Your task to perform on an android device: turn on translation in the chrome app Image 0: 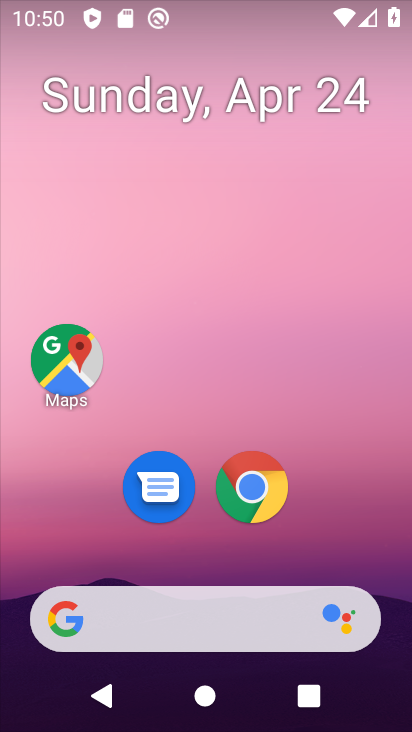
Step 0: click (251, 484)
Your task to perform on an android device: turn on translation in the chrome app Image 1: 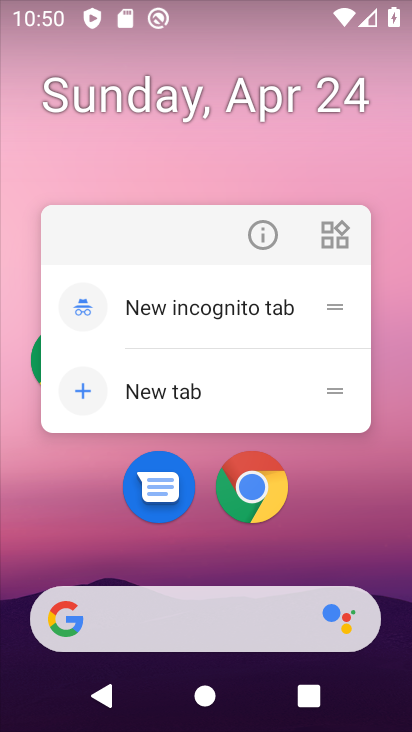
Step 1: click (259, 231)
Your task to perform on an android device: turn on translation in the chrome app Image 2: 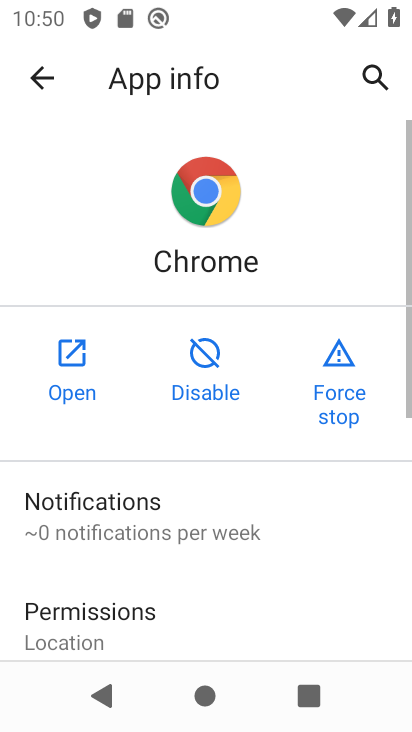
Step 2: click (64, 356)
Your task to perform on an android device: turn on translation in the chrome app Image 3: 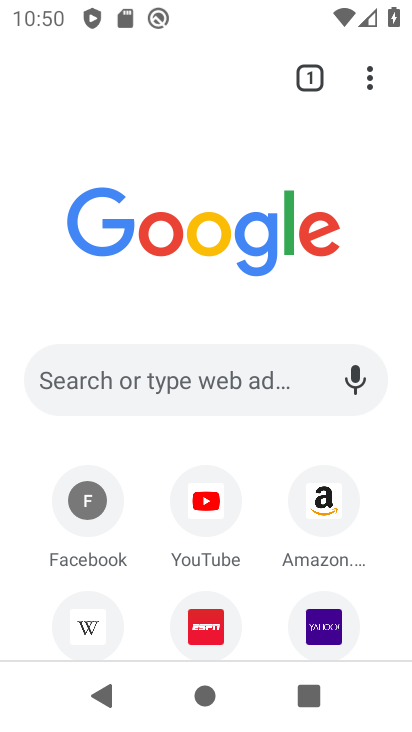
Step 3: click (362, 79)
Your task to perform on an android device: turn on translation in the chrome app Image 4: 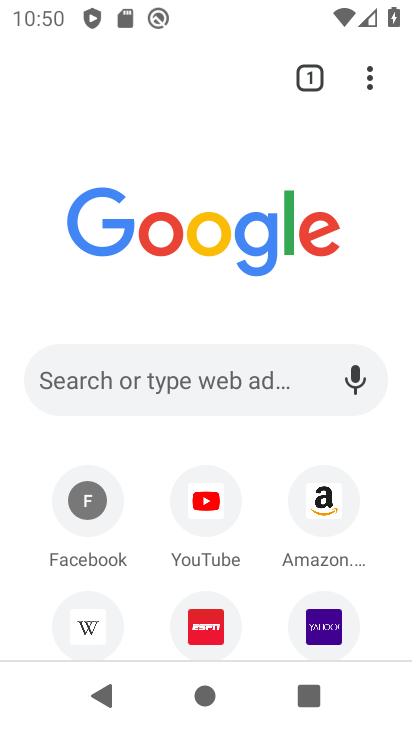
Step 4: click (368, 77)
Your task to perform on an android device: turn on translation in the chrome app Image 5: 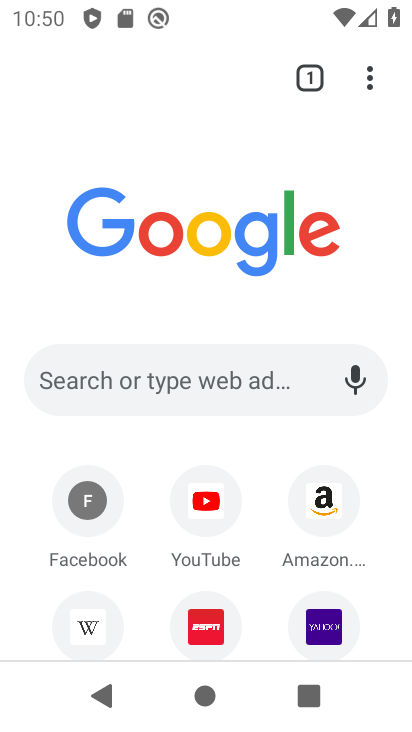
Step 5: click (368, 77)
Your task to perform on an android device: turn on translation in the chrome app Image 6: 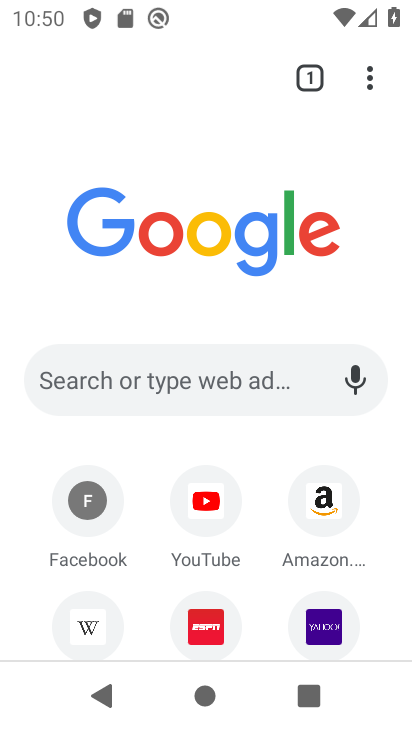
Step 6: click (369, 77)
Your task to perform on an android device: turn on translation in the chrome app Image 7: 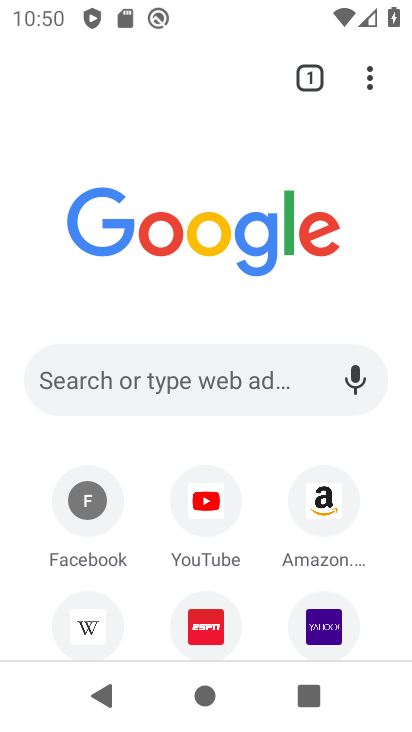
Step 7: click (369, 77)
Your task to perform on an android device: turn on translation in the chrome app Image 8: 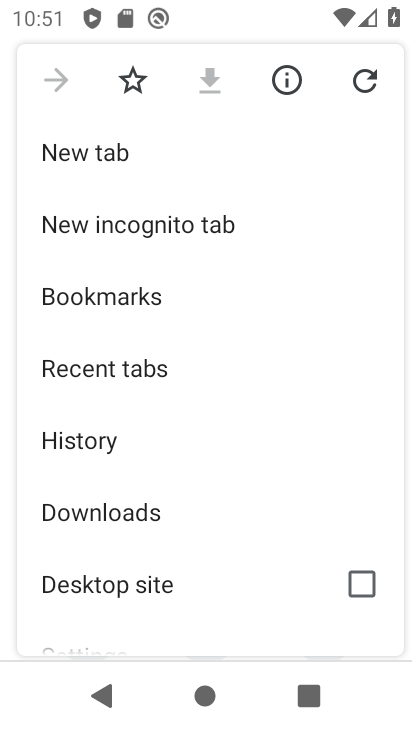
Step 8: drag from (193, 518) to (309, 223)
Your task to perform on an android device: turn on translation in the chrome app Image 9: 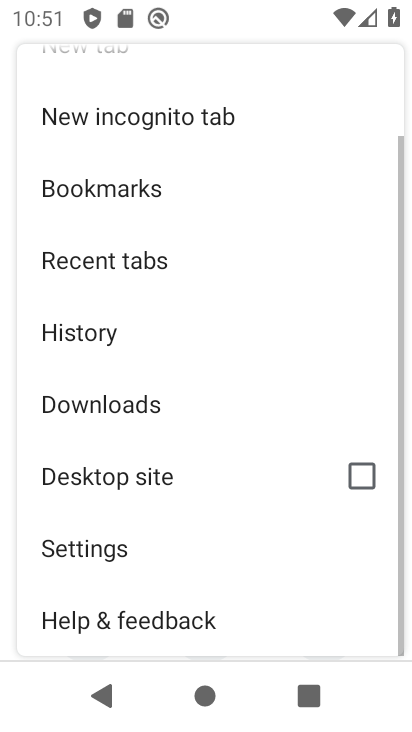
Step 9: click (118, 533)
Your task to perform on an android device: turn on translation in the chrome app Image 10: 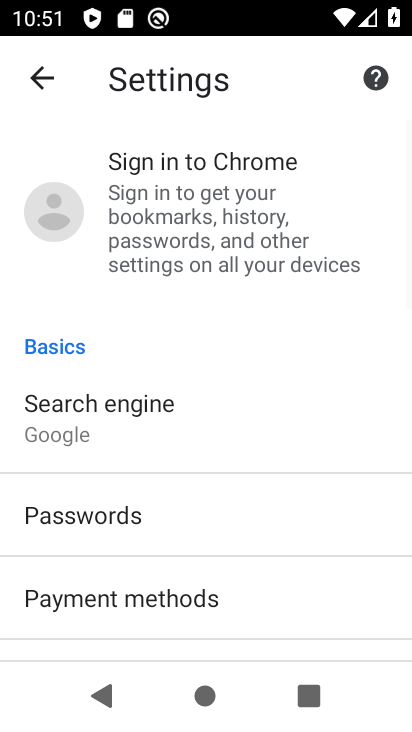
Step 10: drag from (70, 590) to (202, 319)
Your task to perform on an android device: turn on translation in the chrome app Image 11: 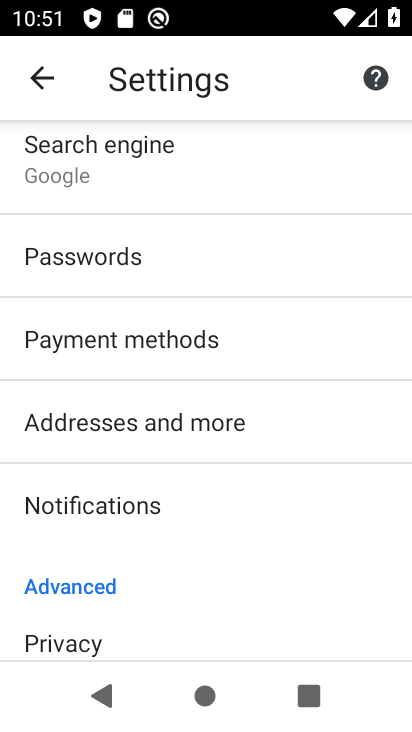
Step 11: drag from (111, 627) to (229, 418)
Your task to perform on an android device: turn on translation in the chrome app Image 12: 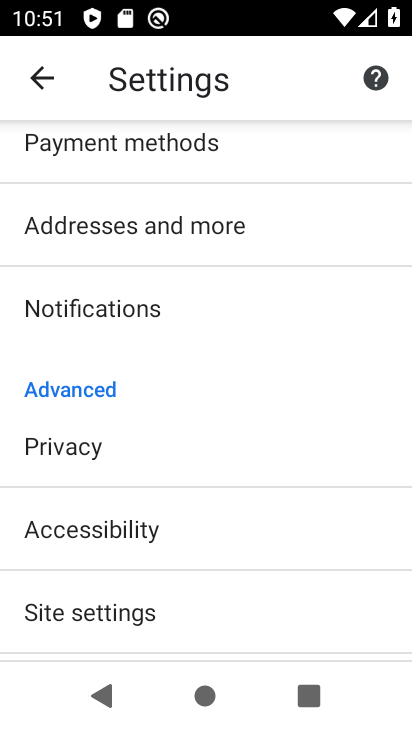
Step 12: click (102, 626)
Your task to perform on an android device: turn on translation in the chrome app Image 13: 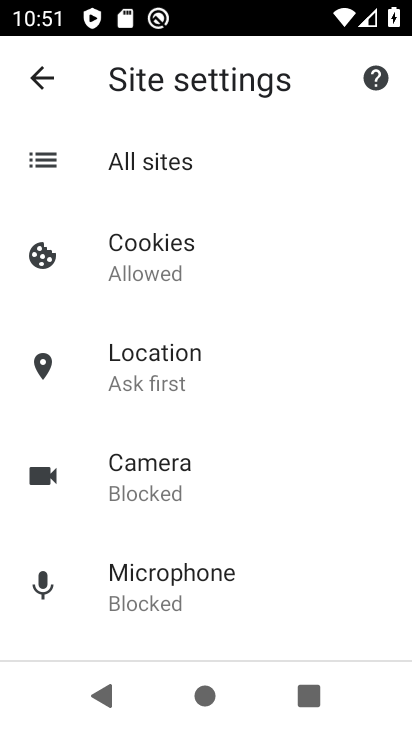
Step 13: drag from (159, 547) to (285, 292)
Your task to perform on an android device: turn on translation in the chrome app Image 14: 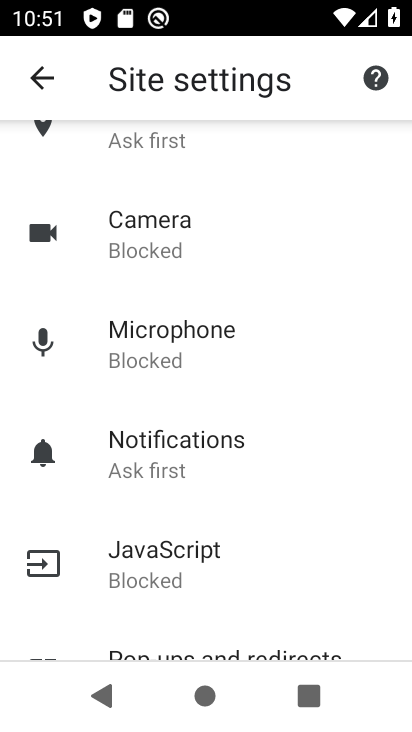
Step 14: press back button
Your task to perform on an android device: turn on translation in the chrome app Image 15: 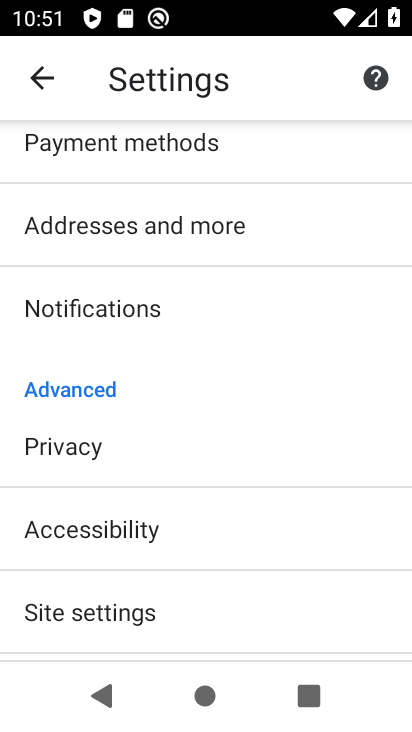
Step 15: drag from (262, 596) to (295, 360)
Your task to perform on an android device: turn on translation in the chrome app Image 16: 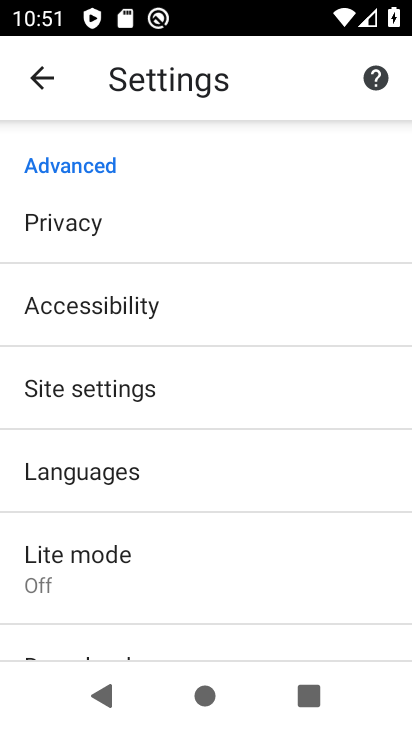
Step 16: click (92, 471)
Your task to perform on an android device: turn on translation in the chrome app Image 17: 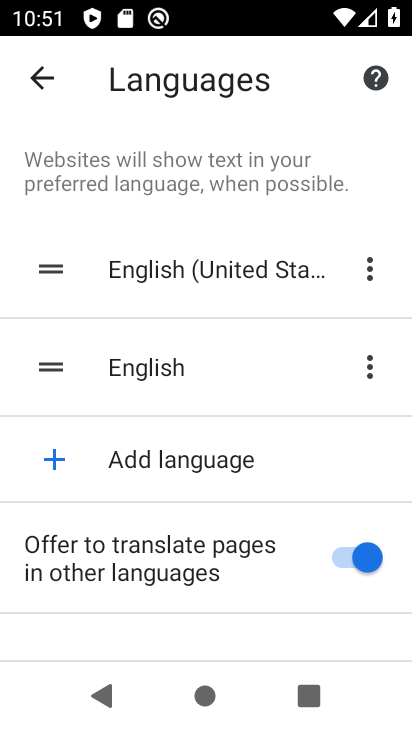
Step 17: task complete